Your task to perform on an android device: turn on airplane mode Image 0: 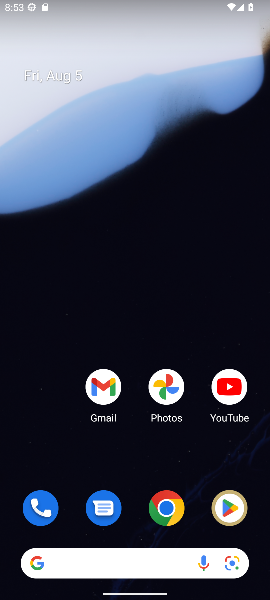
Step 0: drag from (243, 1) to (221, 360)
Your task to perform on an android device: turn on airplane mode Image 1: 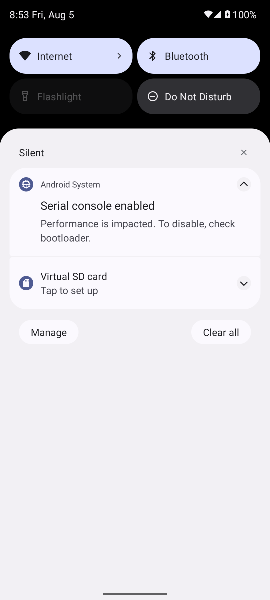
Step 1: drag from (146, 121) to (170, 439)
Your task to perform on an android device: turn on airplane mode Image 2: 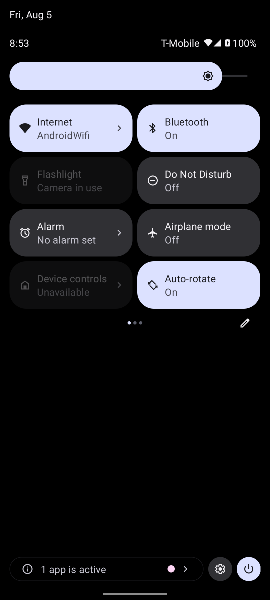
Step 2: click (194, 235)
Your task to perform on an android device: turn on airplane mode Image 3: 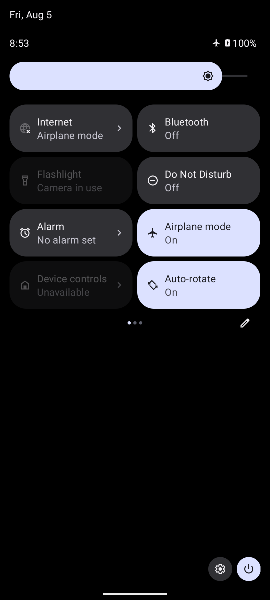
Step 3: task complete